Your task to perform on an android device: Open Youtube and go to the subscriptions tab Image 0: 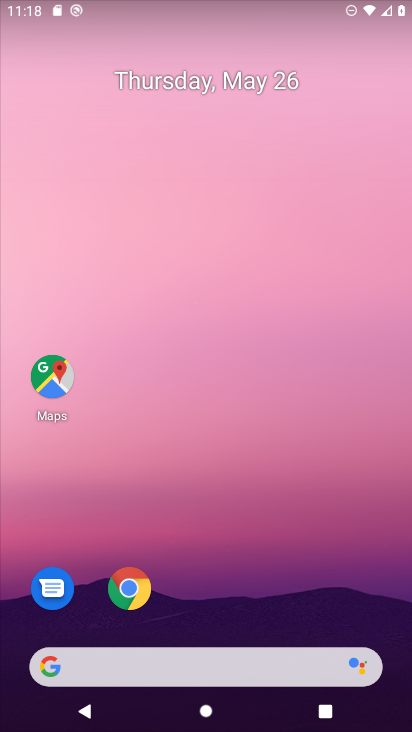
Step 0: drag from (398, 625) to (351, 54)
Your task to perform on an android device: Open Youtube and go to the subscriptions tab Image 1: 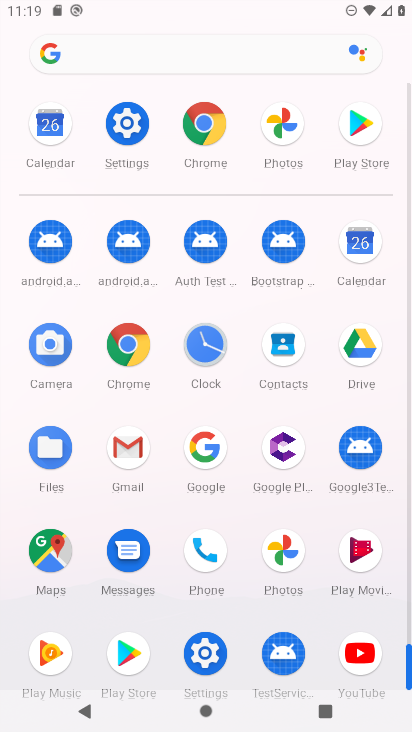
Step 1: click (359, 651)
Your task to perform on an android device: Open Youtube and go to the subscriptions tab Image 2: 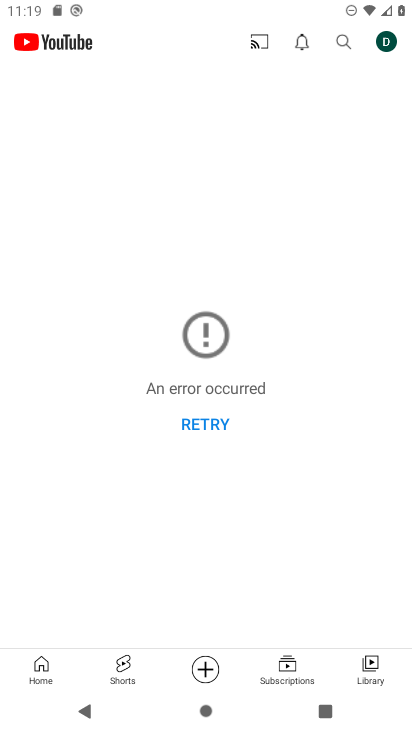
Step 2: click (287, 661)
Your task to perform on an android device: Open Youtube and go to the subscriptions tab Image 3: 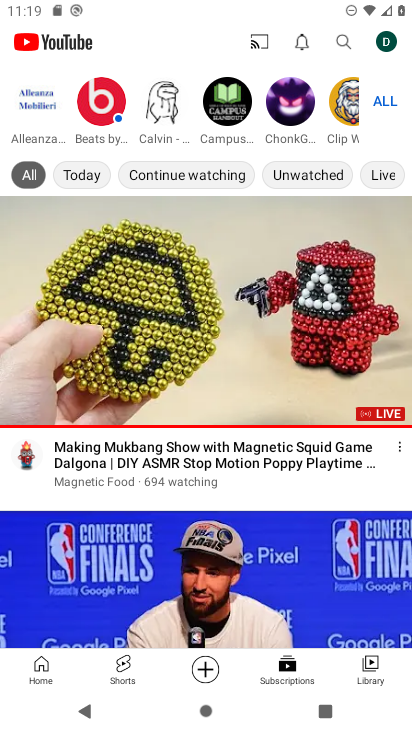
Step 3: task complete